Your task to perform on an android device: change notifications settings Image 0: 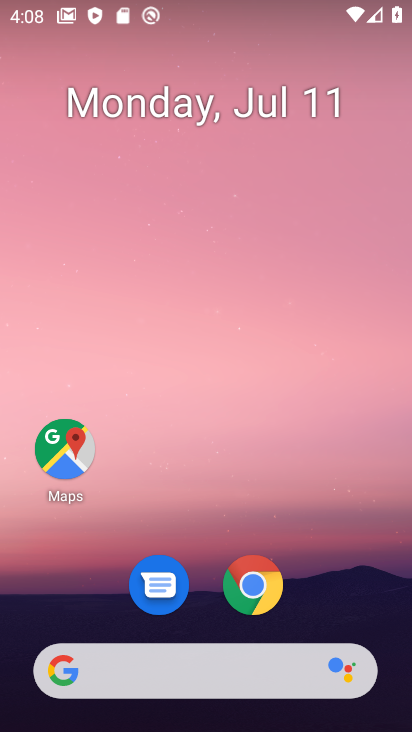
Step 0: drag from (198, 498) to (216, 24)
Your task to perform on an android device: change notifications settings Image 1: 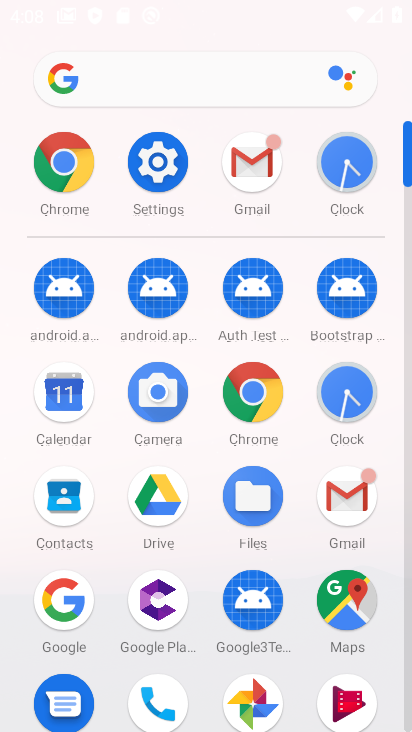
Step 1: click (156, 149)
Your task to perform on an android device: change notifications settings Image 2: 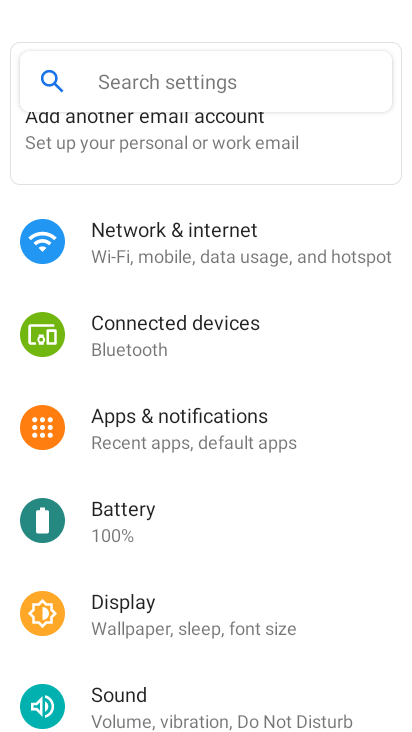
Step 2: click (248, 430)
Your task to perform on an android device: change notifications settings Image 3: 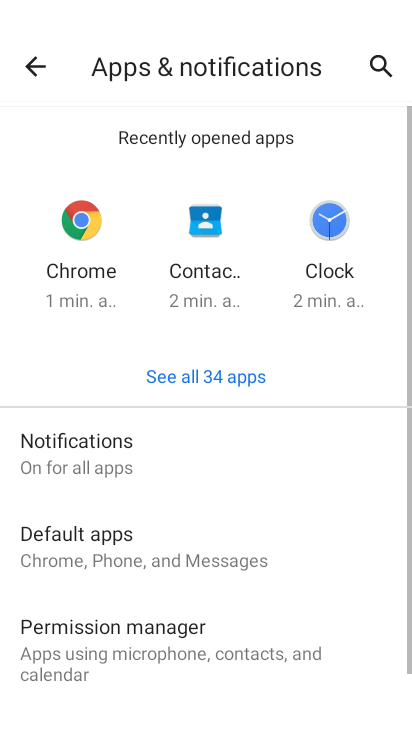
Step 3: click (103, 448)
Your task to perform on an android device: change notifications settings Image 4: 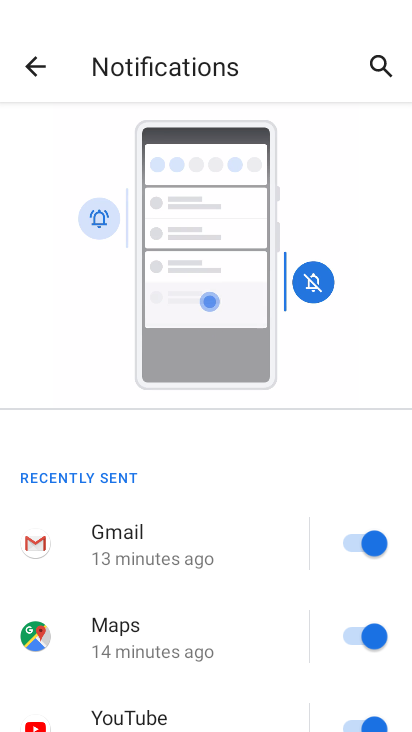
Step 4: drag from (214, 602) to (214, 162)
Your task to perform on an android device: change notifications settings Image 5: 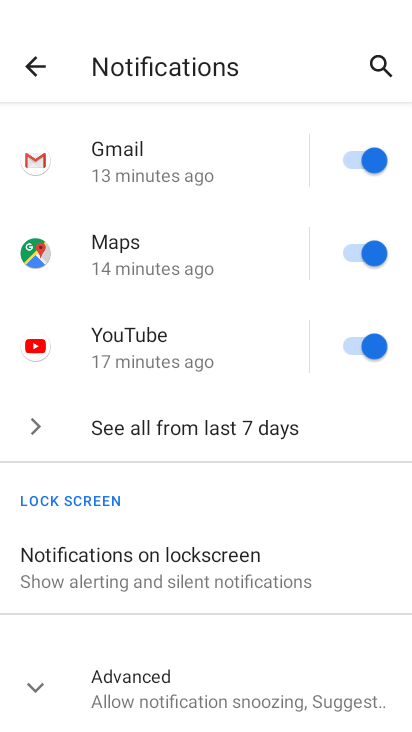
Step 5: click (209, 439)
Your task to perform on an android device: change notifications settings Image 6: 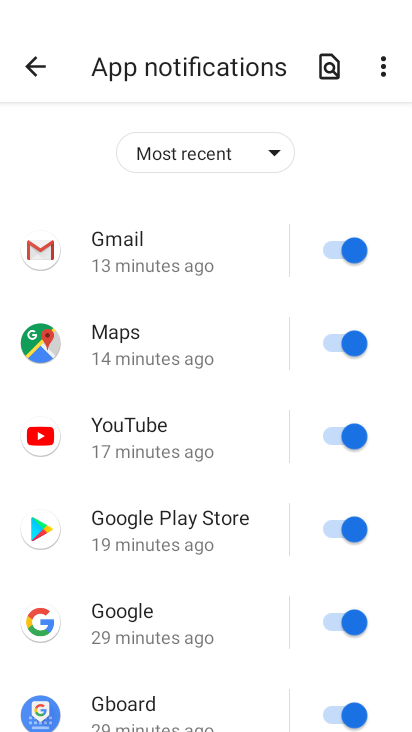
Step 6: click (341, 244)
Your task to perform on an android device: change notifications settings Image 7: 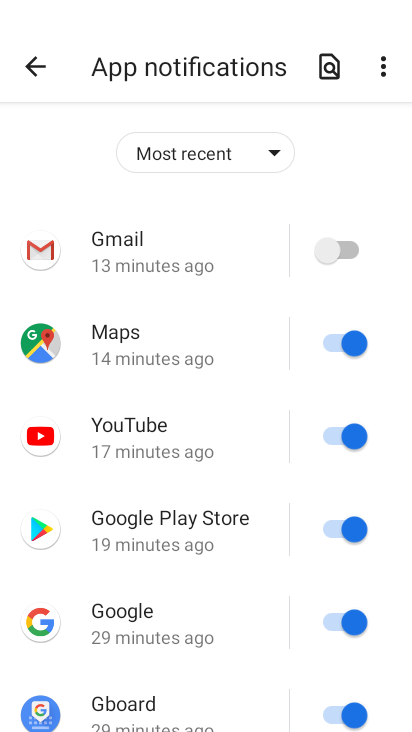
Step 7: click (344, 337)
Your task to perform on an android device: change notifications settings Image 8: 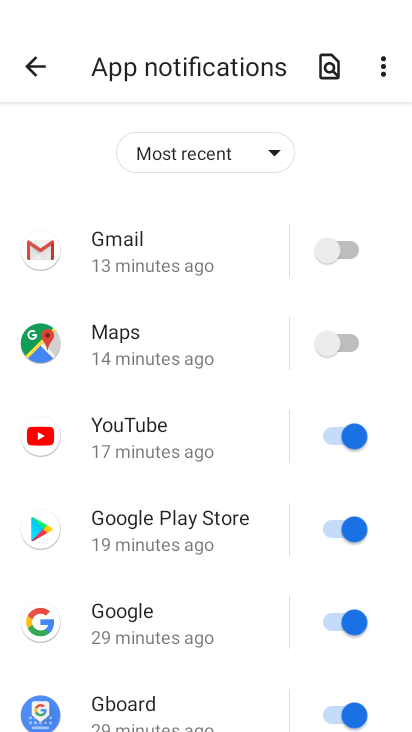
Step 8: click (343, 435)
Your task to perform on an android device: change notifications settings Image 9: 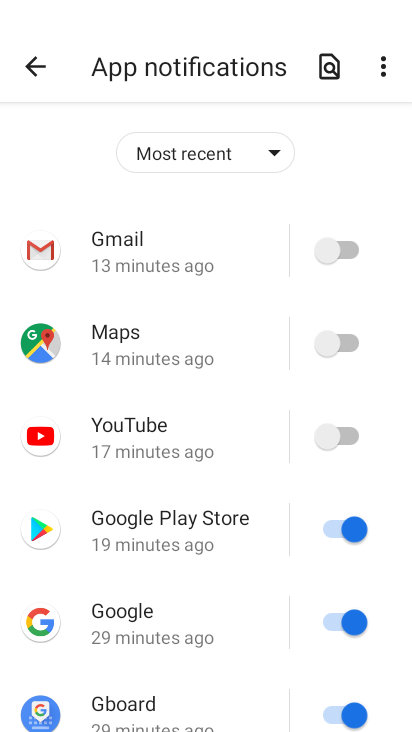
Step 9: click (343, 539)
Your task to perform on an android device: change notifications settings Image 10: 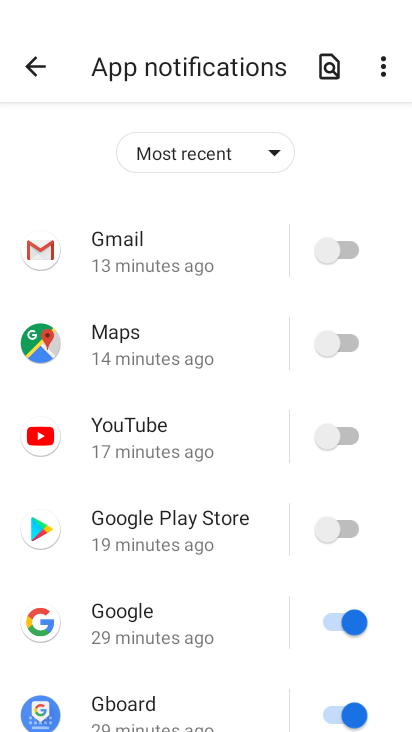
Step 10: click (346, 622)
Your task to perform on an android device: change notifications settings Image 11: 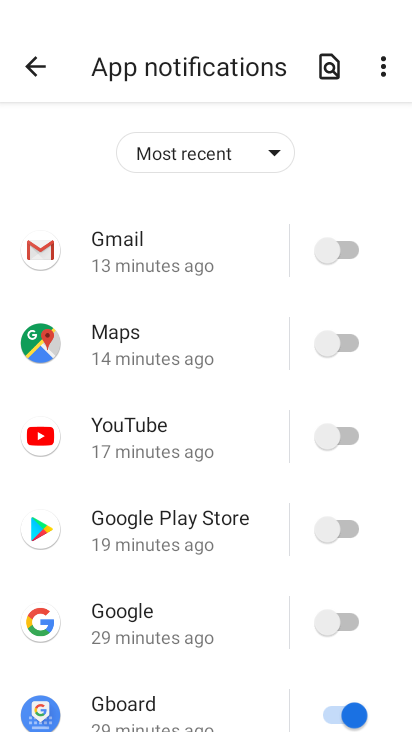
Step 11: click (346, 715)
Your task to perform on an android device: change notifications settings Image 12: 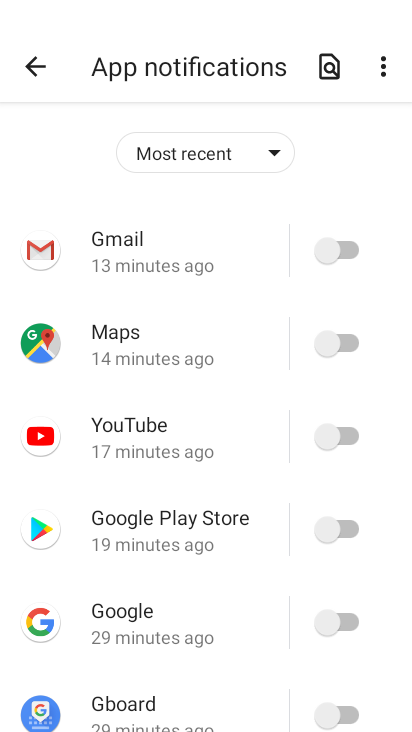
Step 12: drag from (235, 620) to (227, 48)
Your task to perform on an android device: change notifications settings Image 13: 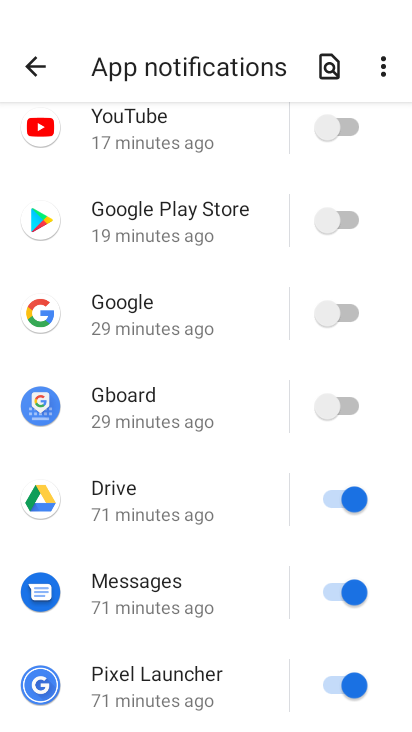
Step 13: click (337, 495)
Your task to perform on an android device: change notifications settings Image 14: 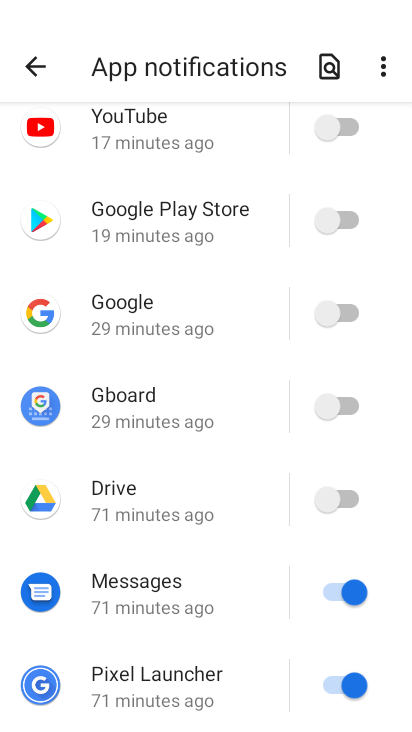
Step 14: click (340, 590)
Your task to perform on an android device: change notifications settings Image 15: 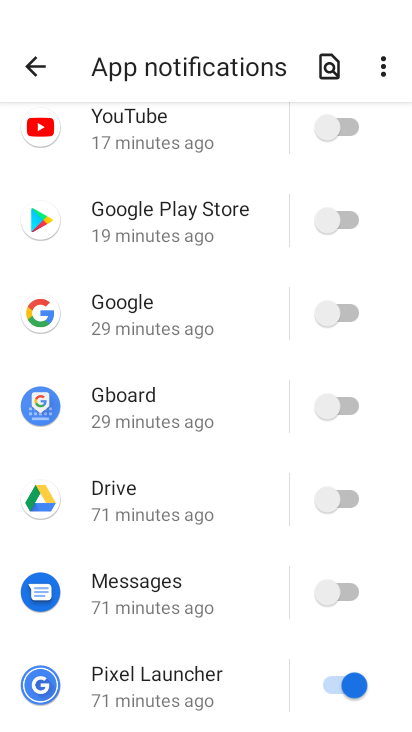
Step 15: click (335, 690)
Your task to perform on an android device: change notifications settings Image 16: 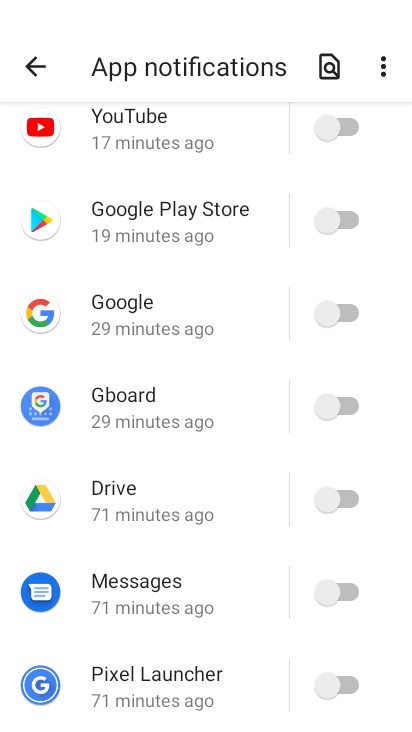
Step 16: task complete